Your task to perform on an android device: Is it going to rain today? Image 0: 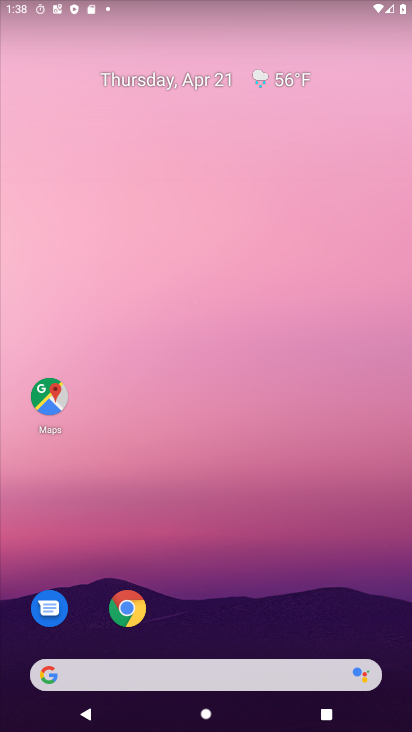
Step 0: click (301, 39)
Your task to perform on an android device: Is it going to rain today? Image 1: 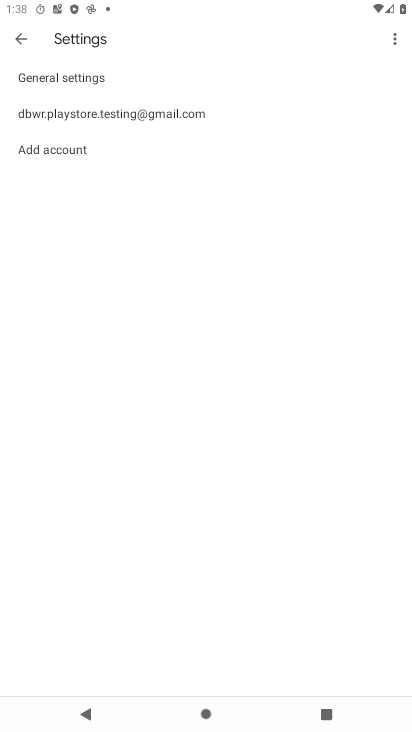
Step 1: press home button
Your task to perform on an android device: Is it going to rain today? Image 2: 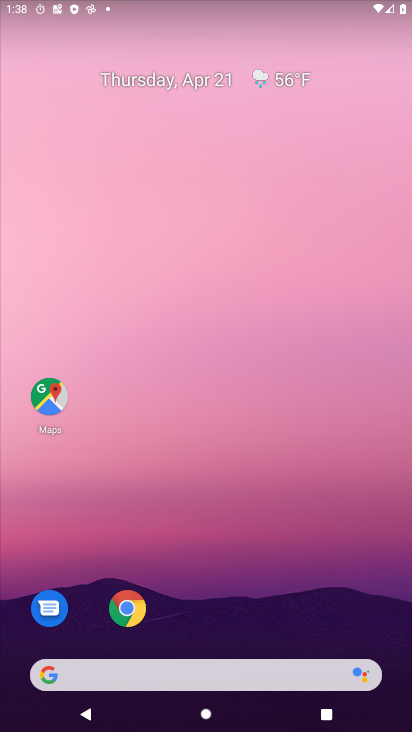
Step 2: click (285, 79)
Your task to perform on an android device: Is it going to rain today? Image 3: 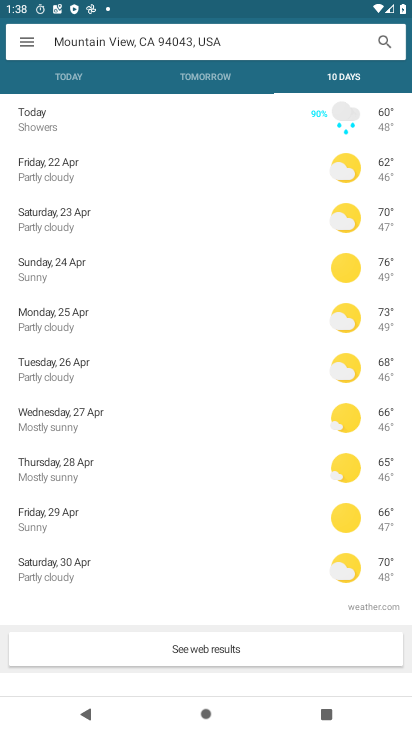
Step 3: click (138, 120)
Your task to perform on an android device: Is it going to rain today? Image 4: 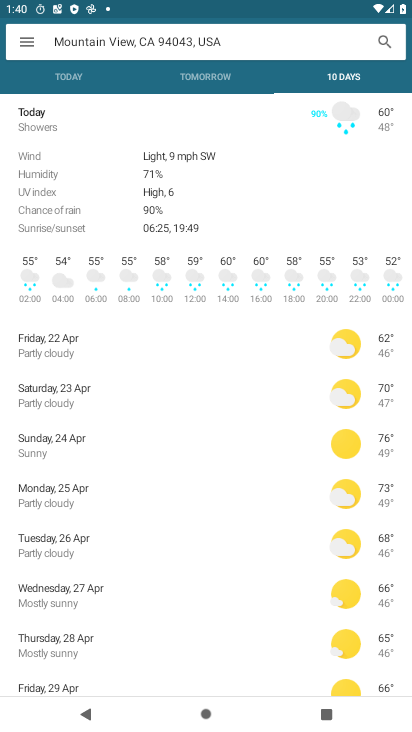
Step 4: task complete